Your task to perform on an android device: Show me popular games on the Play Store Image 0: 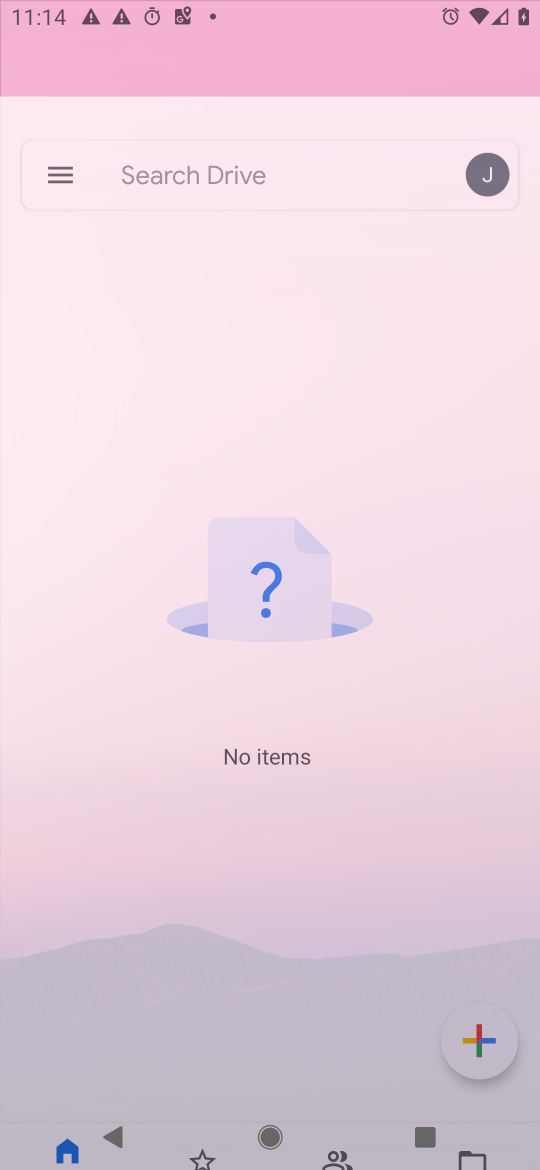
Step 0: click (439, 298)
Your task to perform on an android device: Show me popular games on the Play Store Image 1: 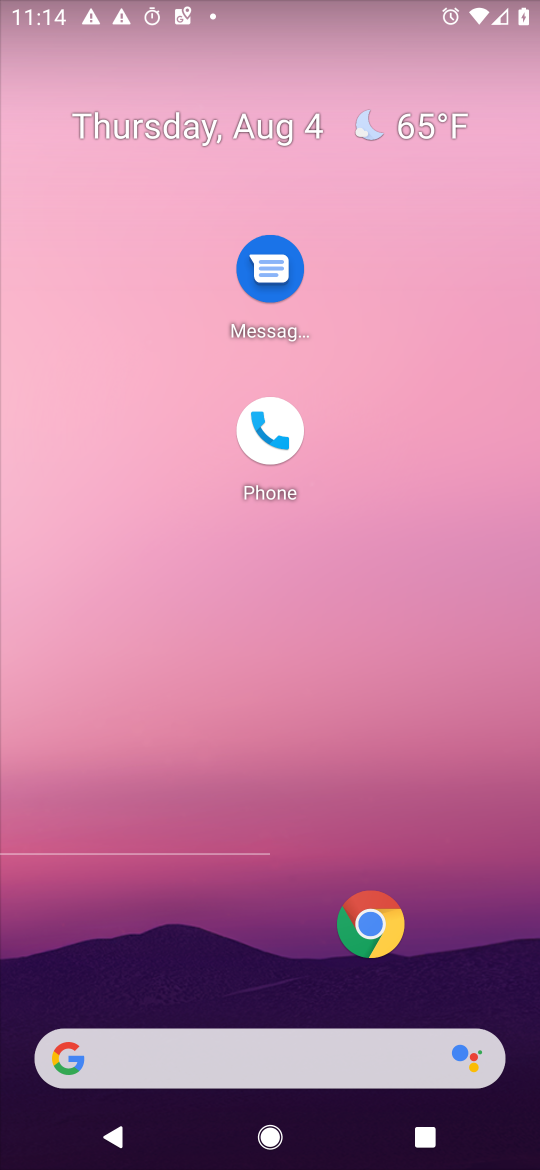
Step 1: drag from (358, 923) to (530, 125)
Your task to perform on an android device: Show me popular games on the Play Store Image 2: 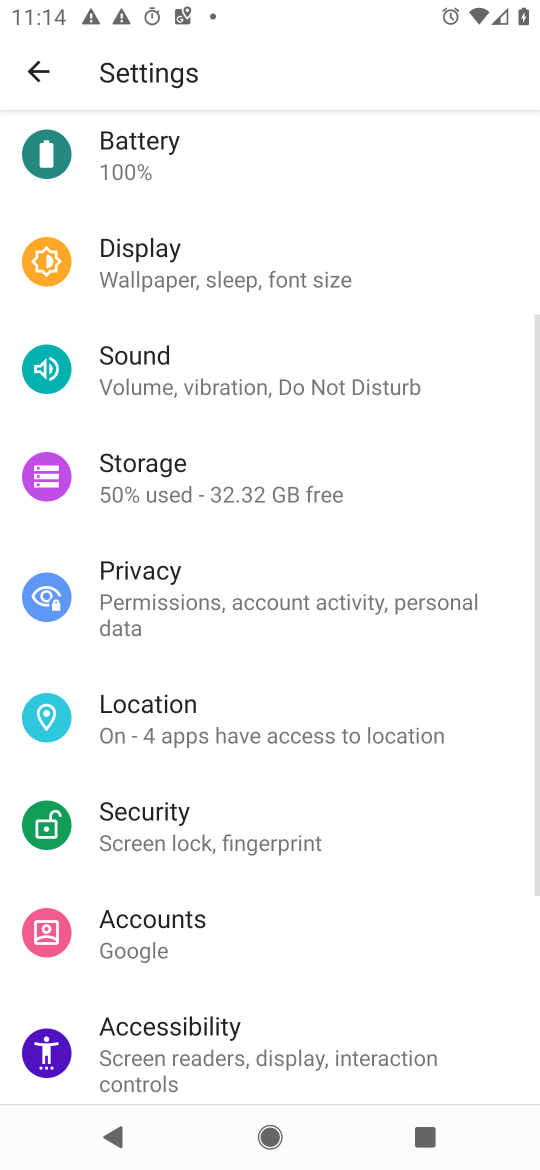
Step 2: press home button
Your task to perform on an android device: Show me popular games on the Play Store Image 3: 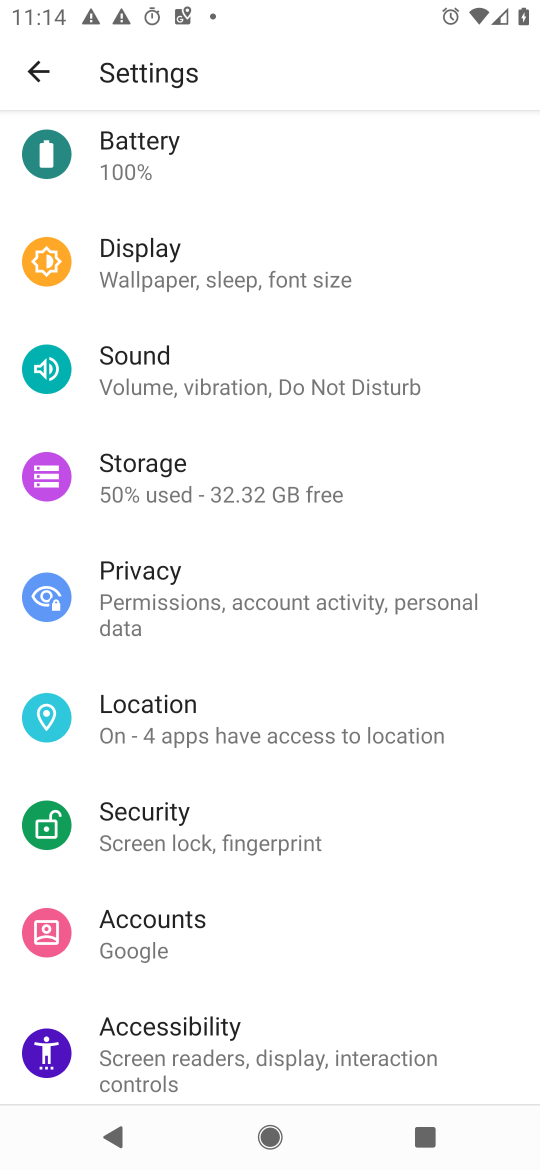
Step 3: drag from (333, 229) to (349, 61)
Your task to perform on an android device: Show me popular games on the Play Store Image 4: 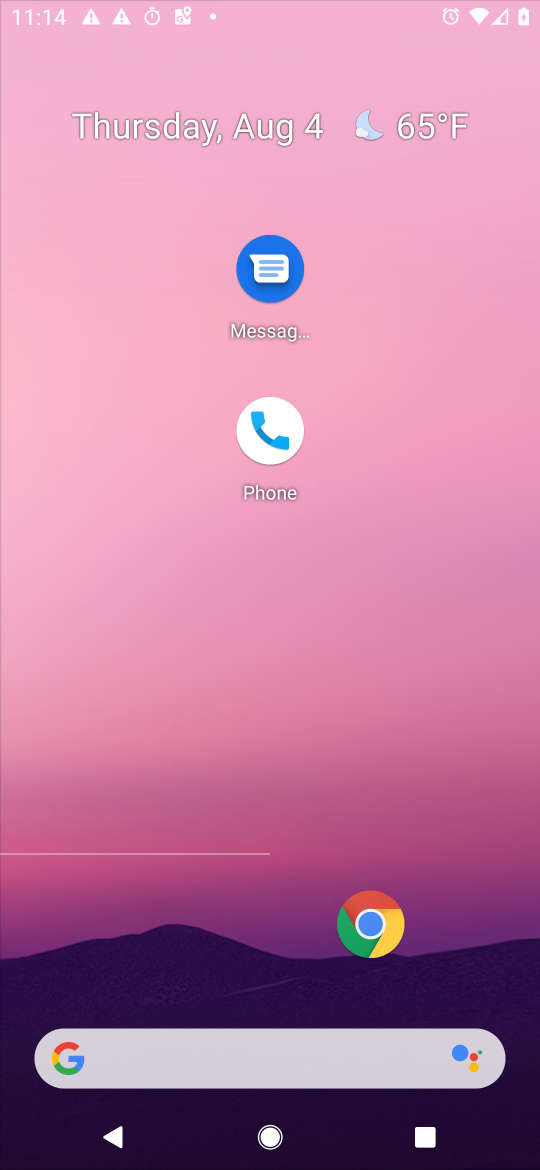
Step 4: drag from (245, 903) to (308, 101)
Your task to perform on an android device: Show me popular games on the Play Store Image 5: 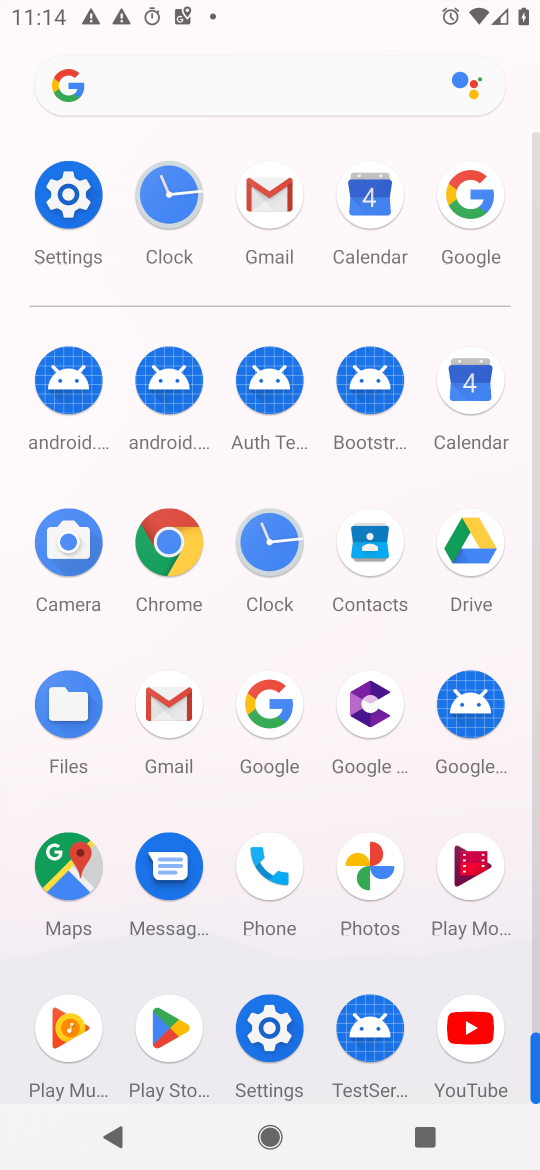
Step 5: click (158, 1027)
Your task to perform on an android device: Show me popular games on the Play Store Image 6: 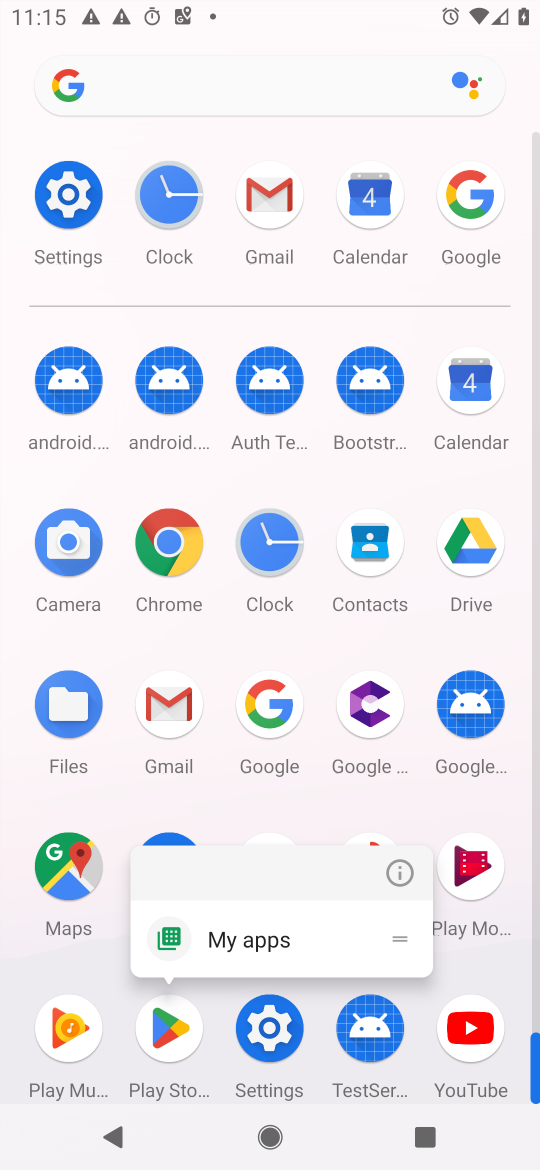
Step 6: click (393, 872)
Your task to perform on an android device: Show me popular games on the Play Store Image 7: 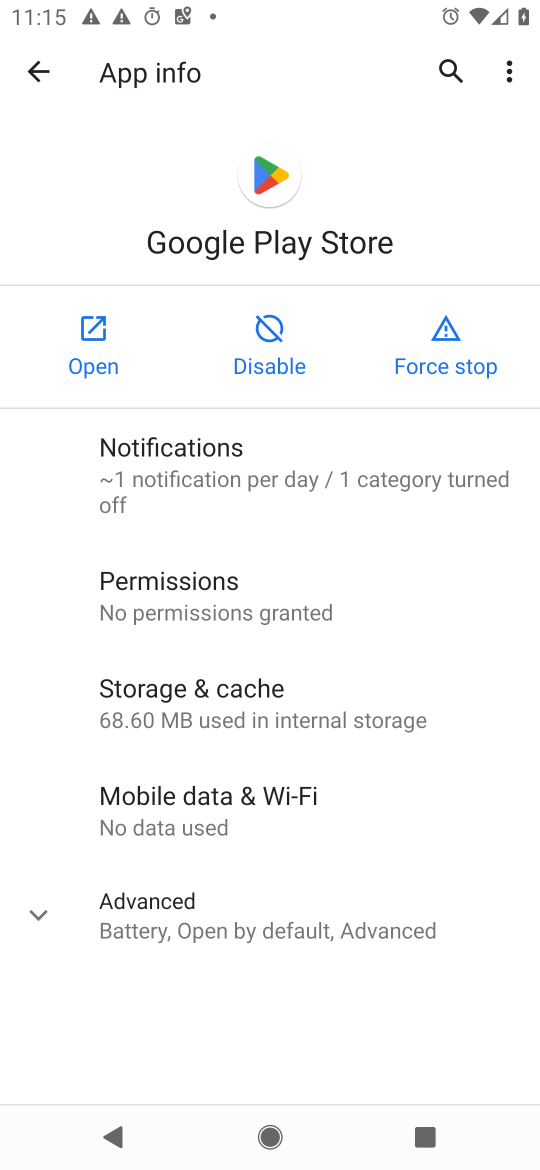
Step 7: click (97, 341)
Your task to perform on an android device: Show me popular games on the Play Store Image 8: 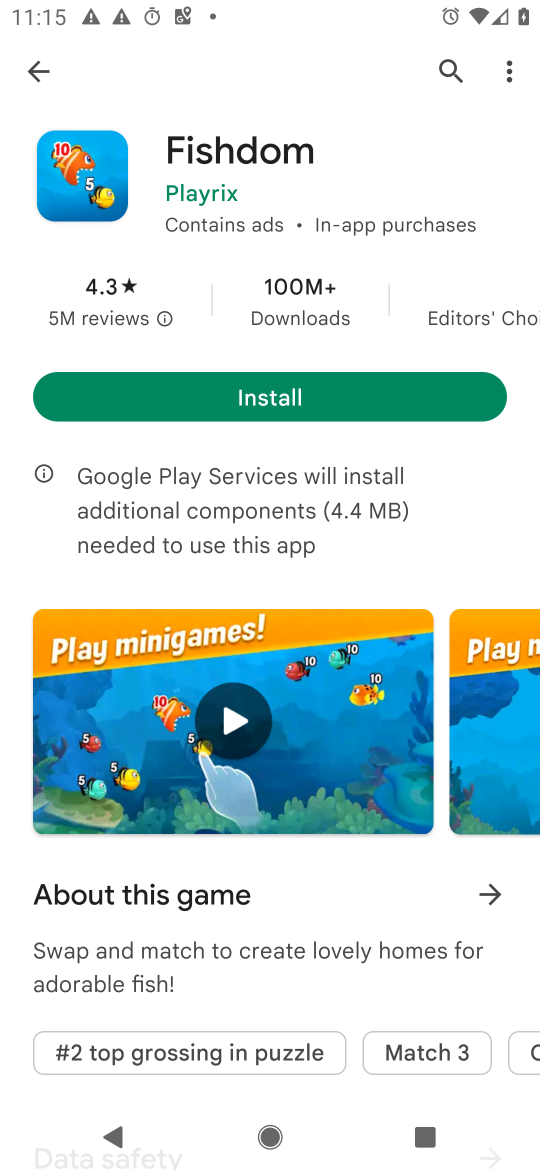
Step 8: drag from (323, 574) to (387, 105)
Your task to perform on an android device: Show me popular games on the Play Store Image 9: 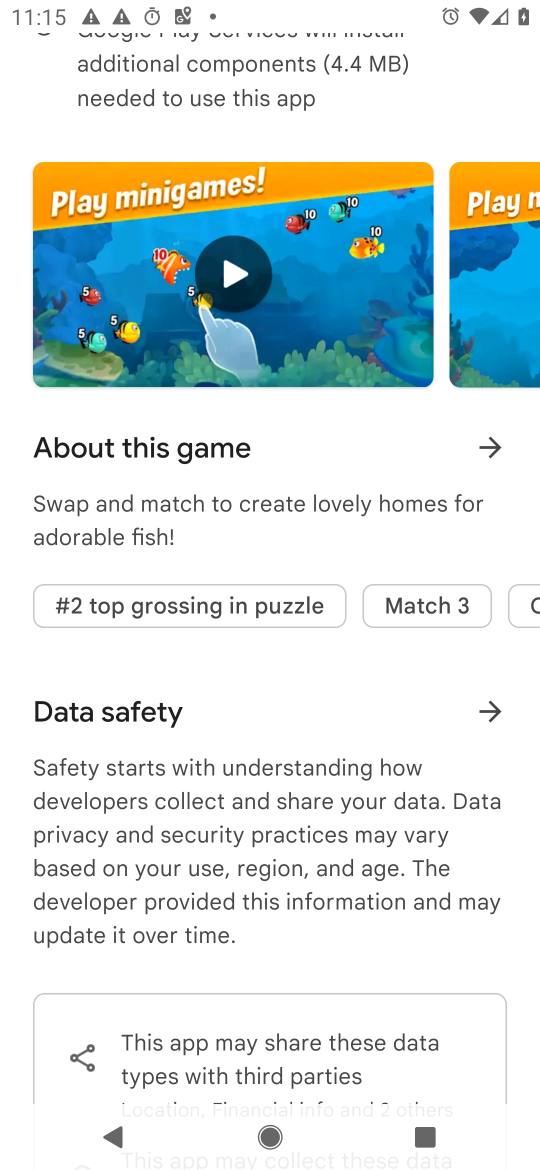
Step 9: press back button
Your task to perform on an android device: Show me popular games on the Play Store Image 10: 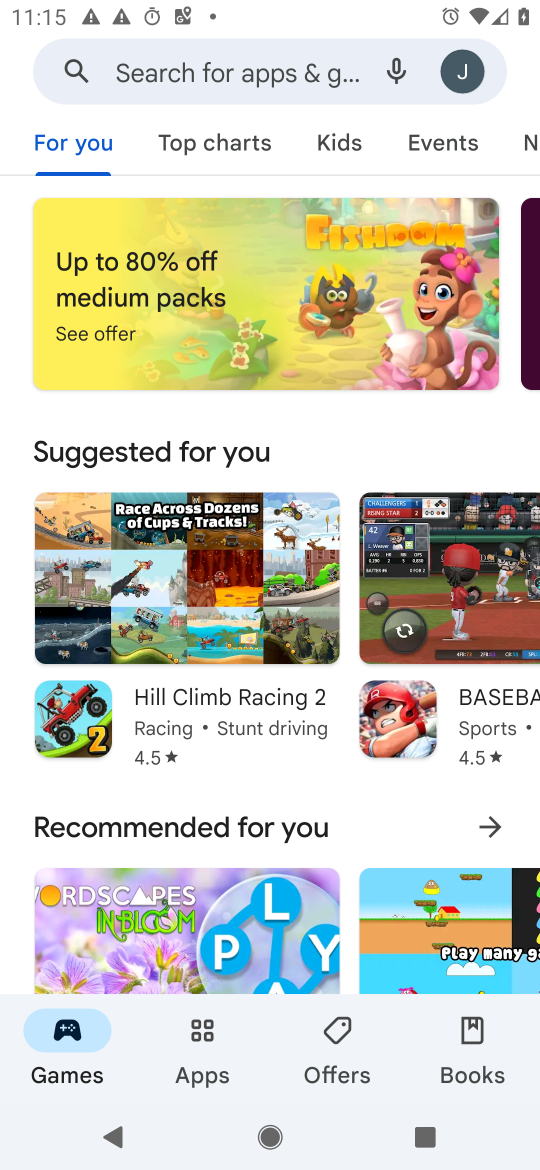
Step 10: drag from (340, 610) to (442, 229)
Your task to perform on an android device: Show me popular games on the Play Store Image 11: 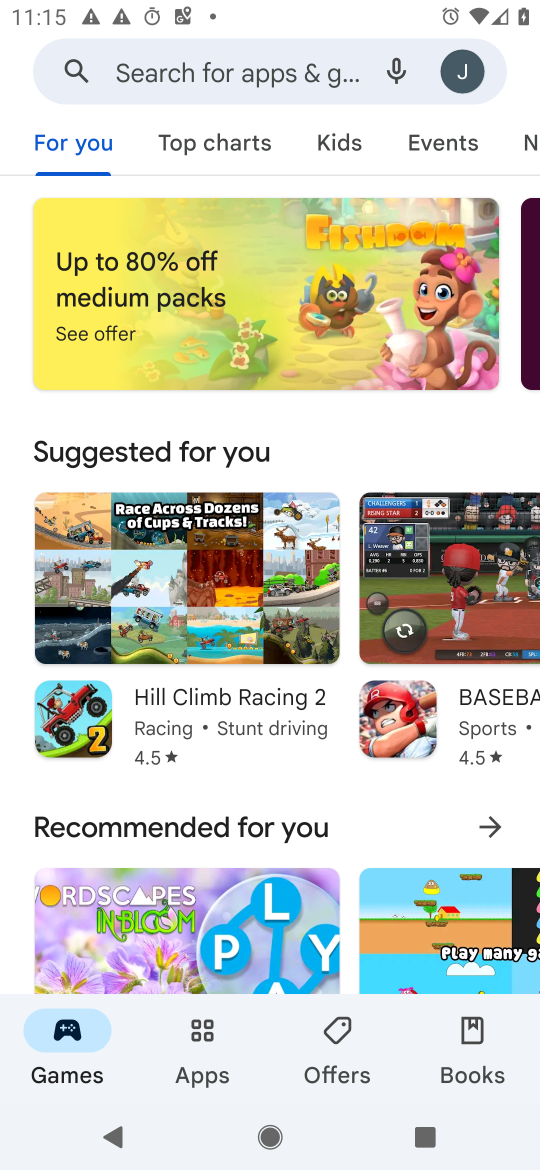
Step 11: drag from (379, 635) to (429, 186)
Your task to perform on an android device: Show me popular games on the Play Store Image 12: 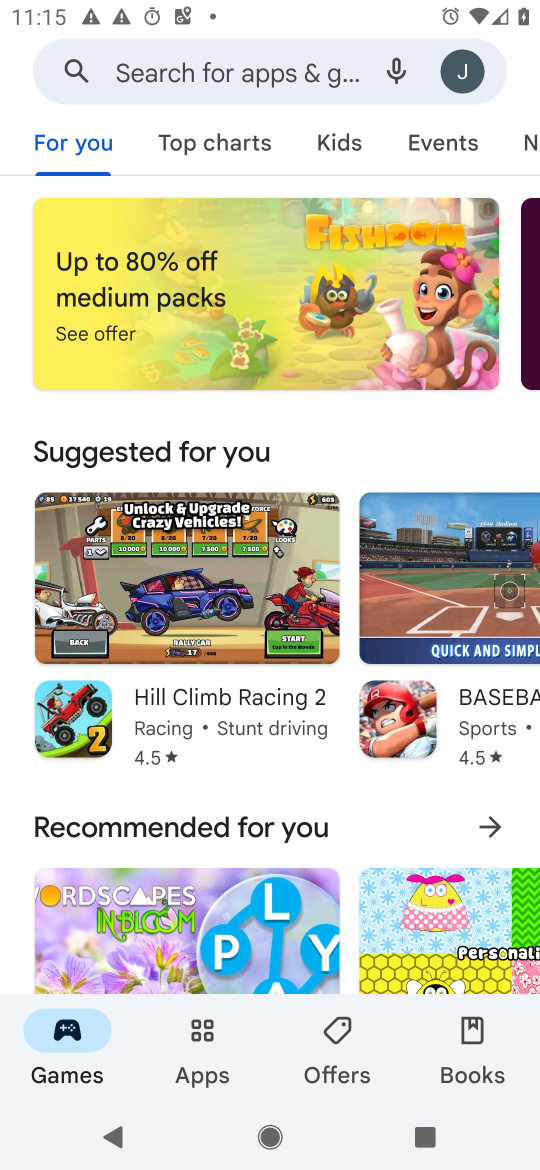
Step 12: drag from (297, 796) to (380, 325)
Your task to perform on an android device: Show me popular games on the Play Store Image 13: 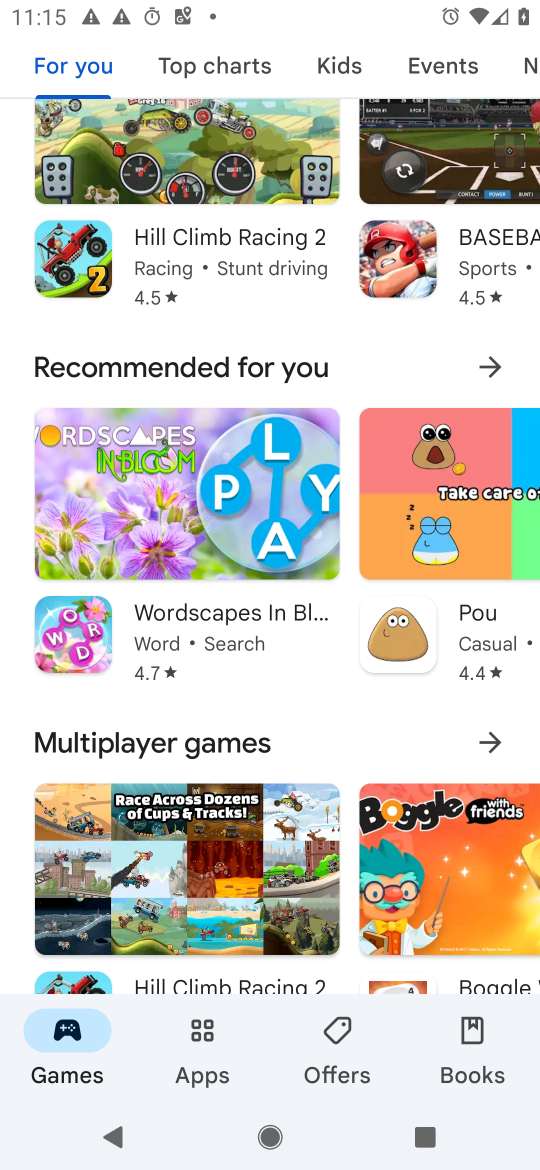
Step 13: drag from (198, 693) to (277, 125)
Your task to perform on an android device: Show me popular games on the Play Store Image 14: 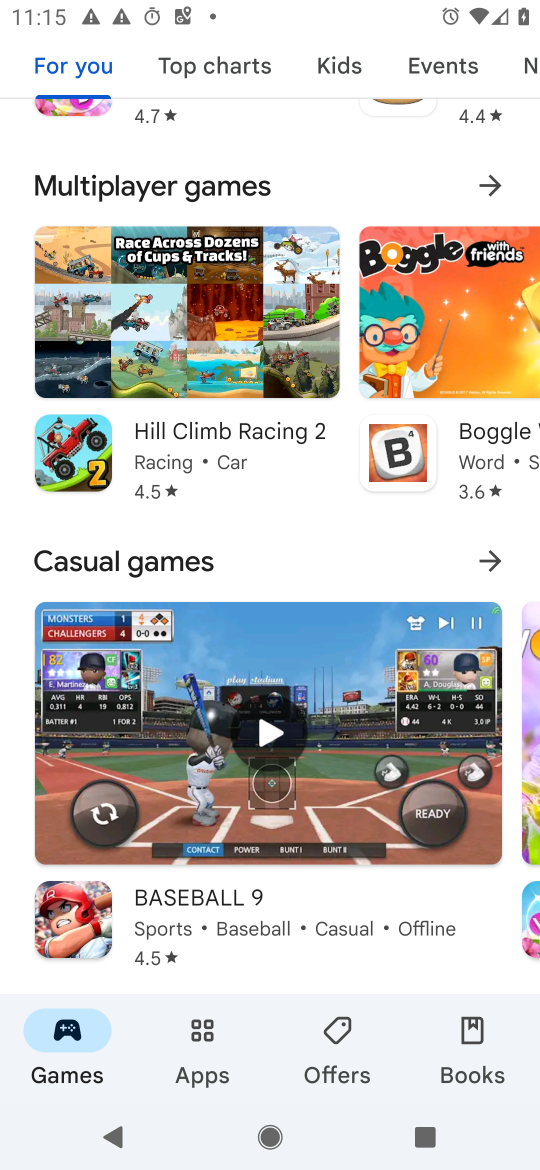
Step 14: drag from (268, 281) to (286, 173)
Your task to perform on an android device: Show me popular games on the Play Store Image 15: 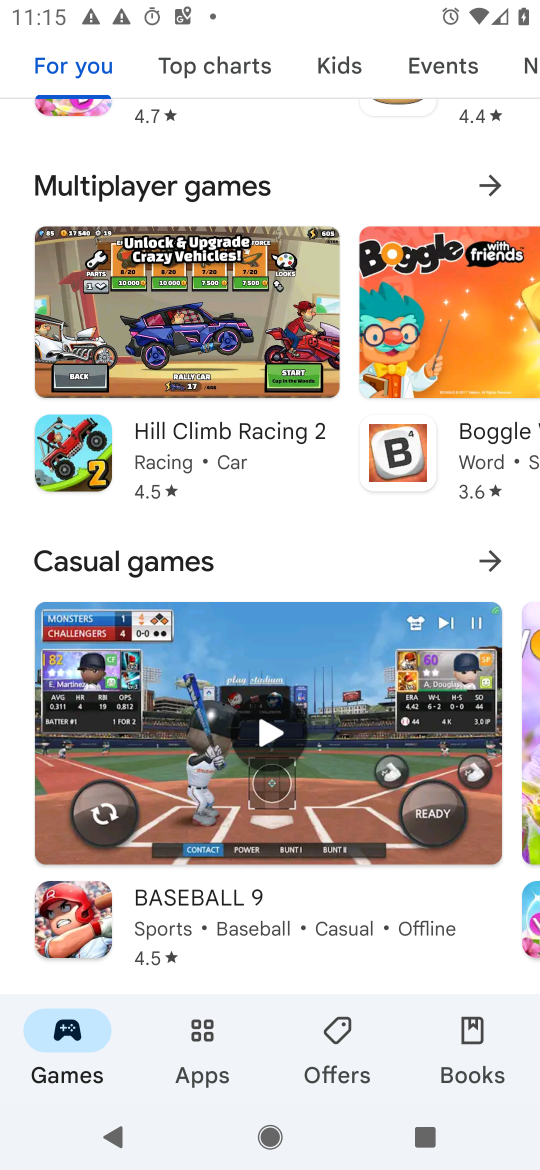
Step 15: drag from (269, 842) to (317, 330)
Your task to perform on an android device: Show me popular games on the Play Store Image 16: 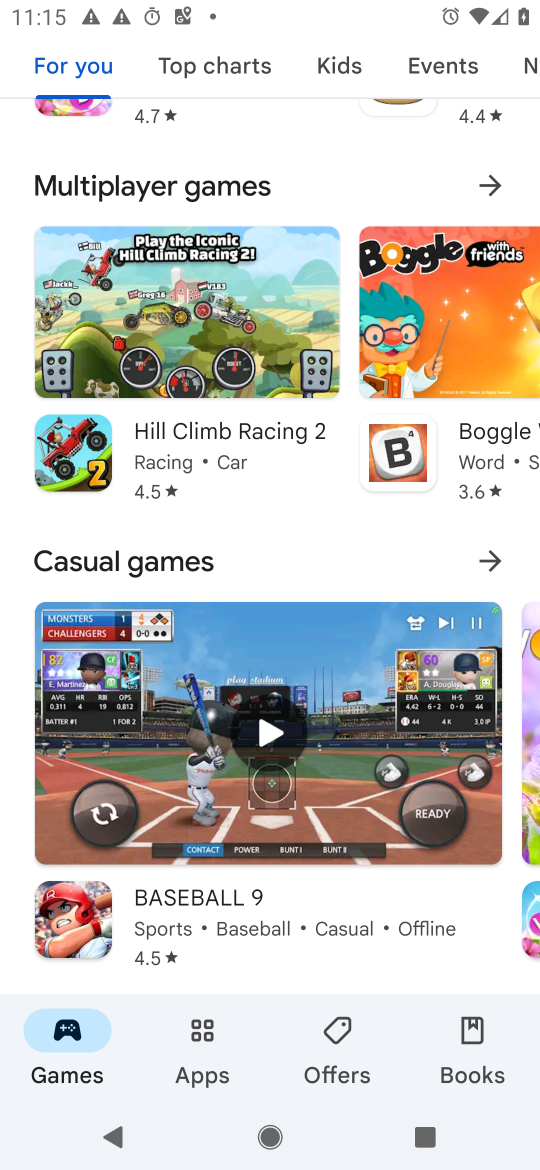
Step 16: drag from (234, 525) to (311, 62)
Your task to perform on an android device: Show me popular games on the Play Store Image 17: 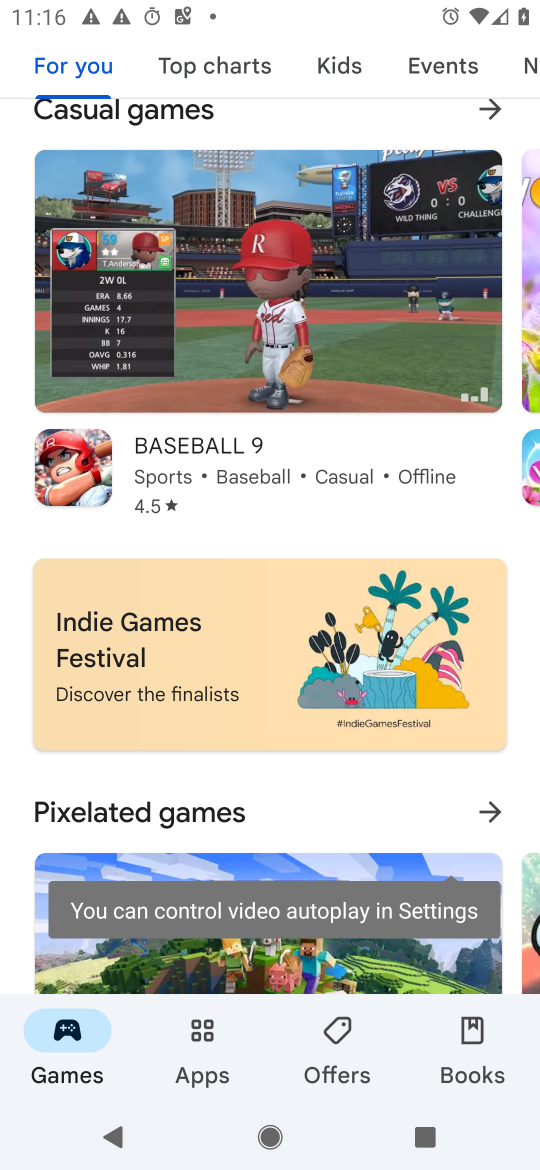
Step 17: click (237, 296)
Your task to perform on an android device: Show me popular games on the Play Store Image 18: 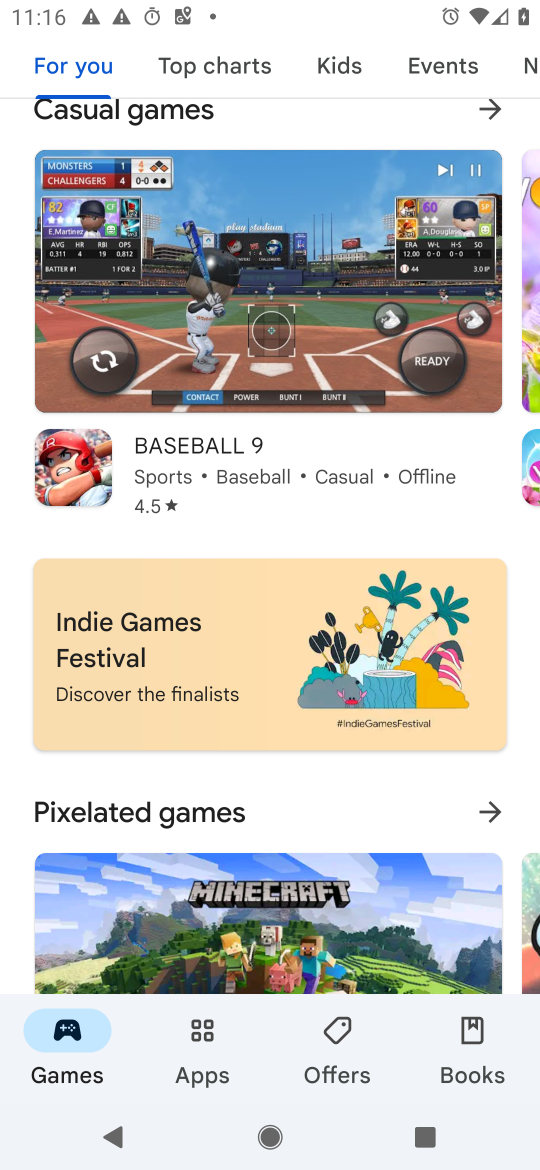
Step 18: task complete